Your task to perform on an android device: delete the emails in spam in the gmail app Image 0: 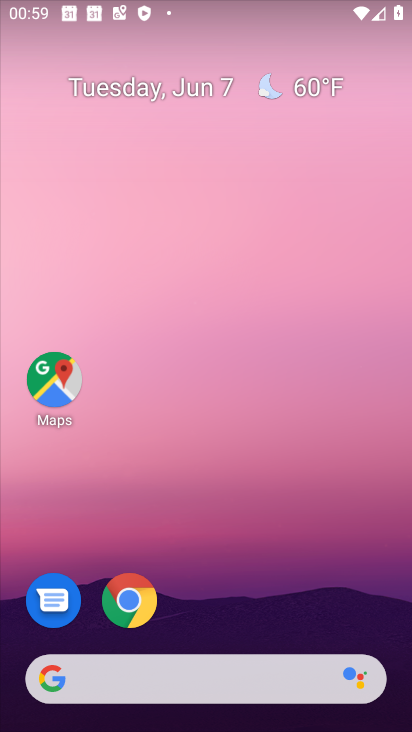
Step 0: drag from (215, 724) to (215, 147)
Your task to perform on an android device: delete the emails in spam in the gmail app Image 1: 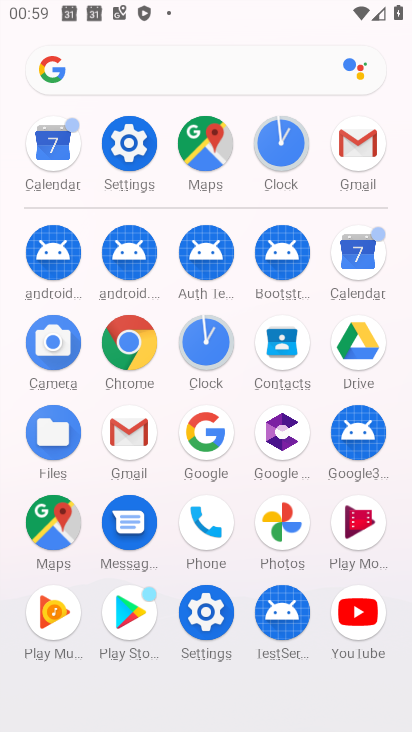
Step 1: click (125, 428)
Your task to perform on an android device: delete the emails in spam in the gmail app Image 2: 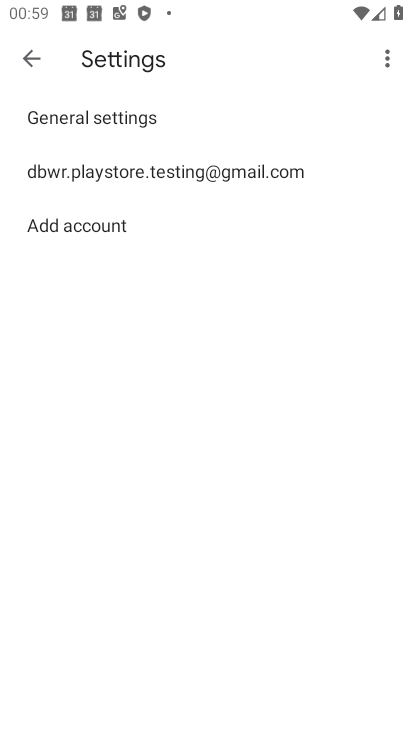
Step 2: click (33, 58)
Your task to perform on an android device: delete the emails in spam in the gmail app Image 3: 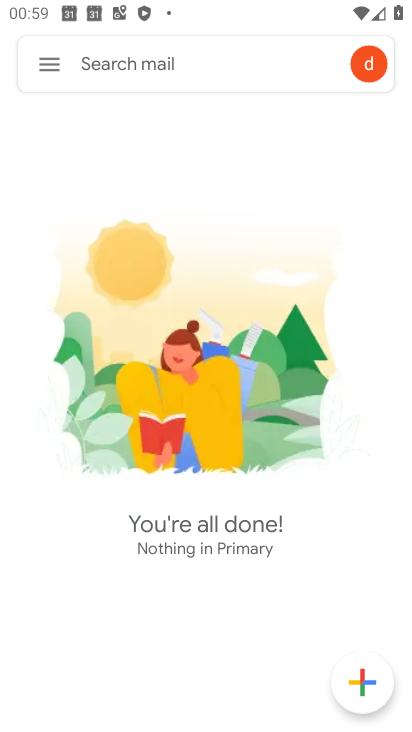
Step 3: click (50, 65)
Your task to perform on an android device: delete the emails in spam in the gmail app Image 4: 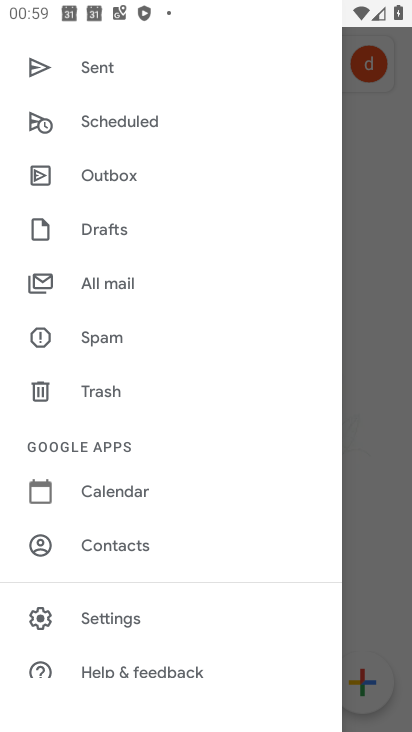
Step 4: drag from (144, 128) to (166, 380)
Your task to perform on an android device: delete the emails in spam in the gmail app Image 5: 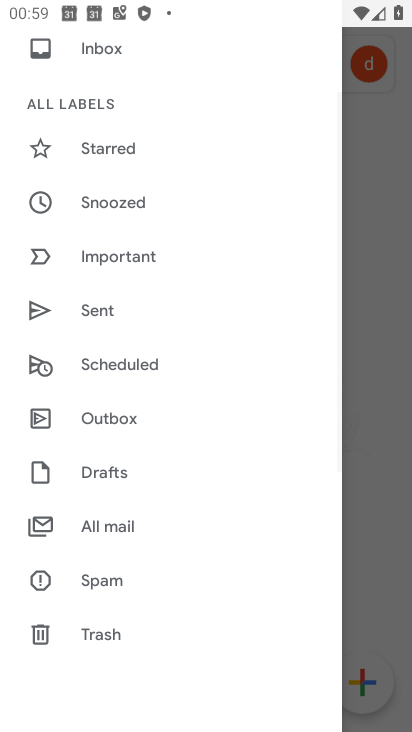
Step 5: click (98, 579)
Your task to perform on an android device: delete the emails in spam in the gmail app Image 6: 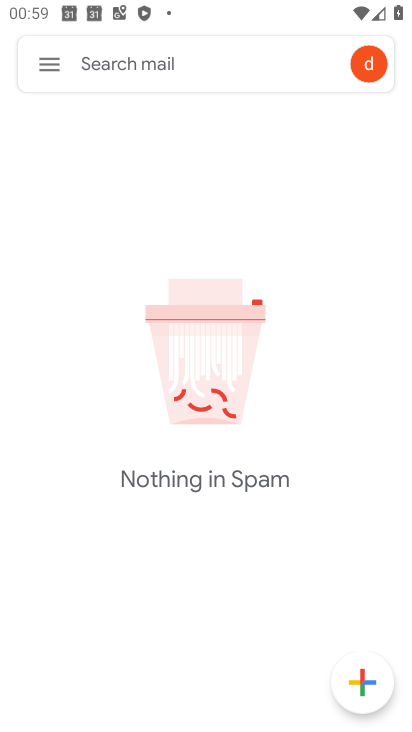
Step 6: task complete